Your task to perform on an android device: move an email to a new category in the gmail app Image 0: 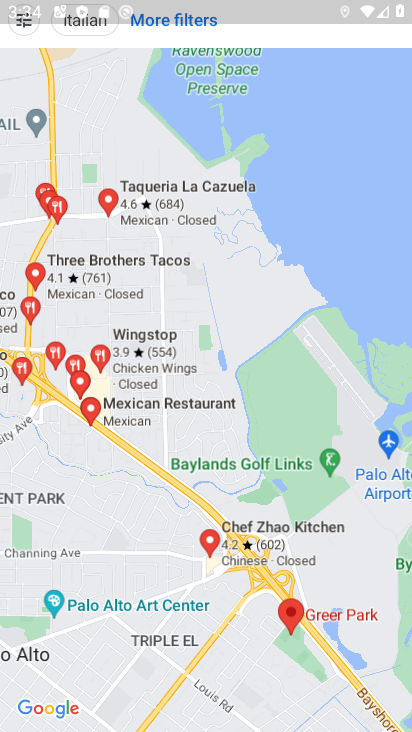
Step 0: press back button
Your task to perform on an android device: move an email to a new category in the gmail app Image 1: 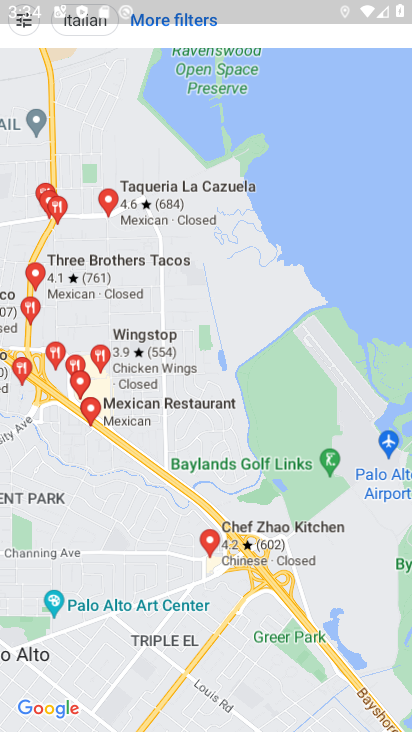
Step 1: press home button
Your task to perform on an android device: move an email to a new category in the gmail app Image 2: 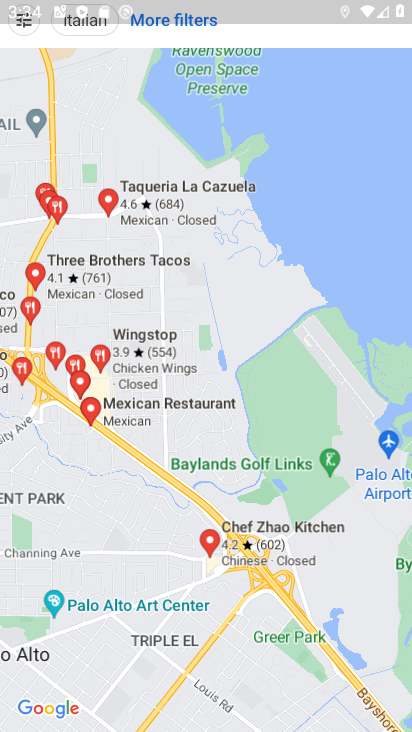
Step 2: press home button
Your task to perform on an android device: move an email to a new category in the gmail app Image 3: 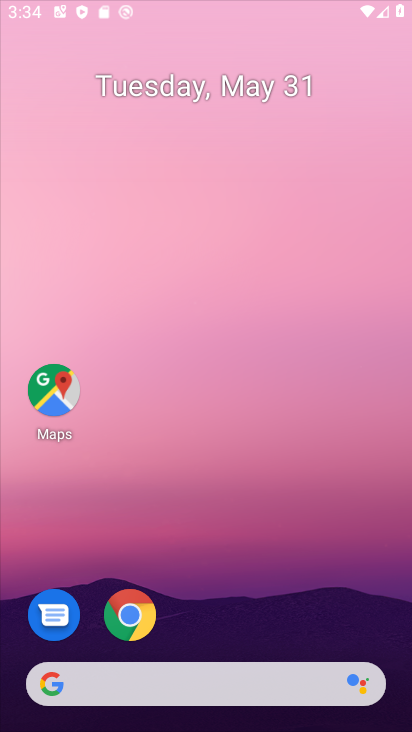
Step 3: press home button
Your task to perform on an android device: move an email to a new category in the gmail app Image 4: 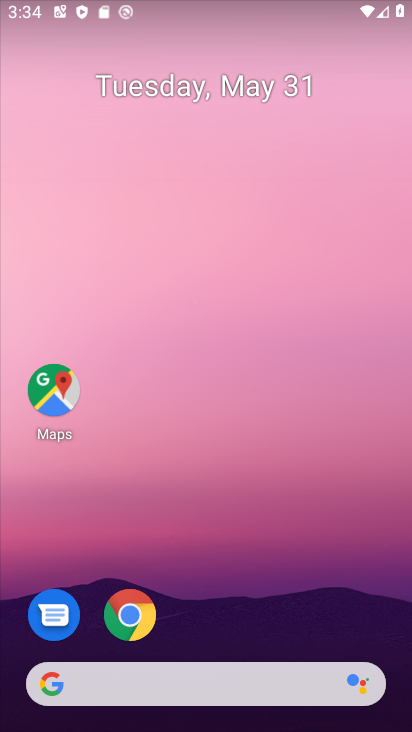
Step 4: drag from (214, 718) to (152, 80)
Your task to perform on an android device: move an email to a new category in the gmail app Image 5: 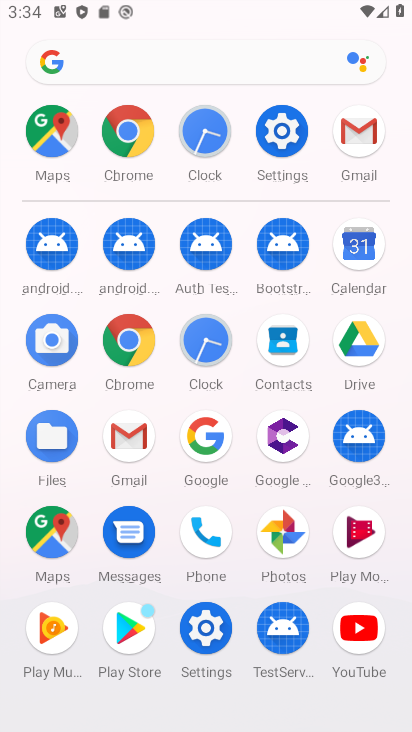
Step 5: click (121, 430)
Your task to perform on an android device: move an email to a new category in the gmail app Image 6: 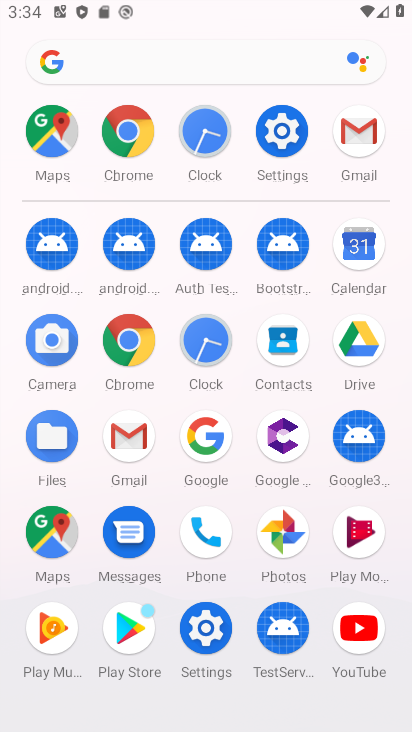
Step 6: click (121, 430)
Your task to perform on an android device: move an email to a new category in the gmail app Image 7: 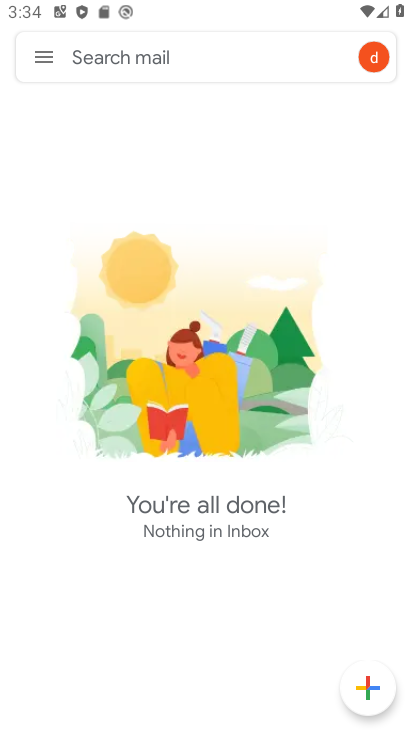
Step 7: click (45, 63)
Your task to perform on an android device: move an email to a new category in the gmail app Image 8: 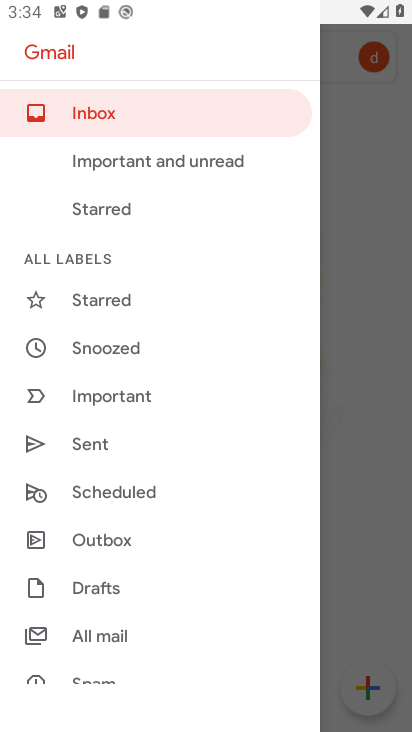
Step 8: click (100, 630)
Your task to perform on an android device: move an email to a new category in the gmail app Image 9: 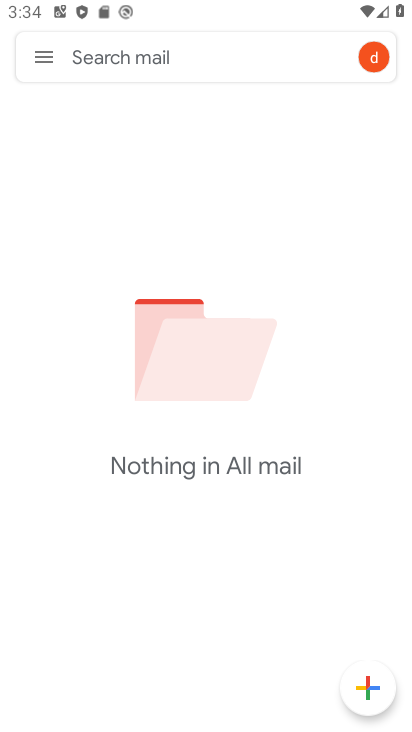
Step 9: task complete